Your task to perform on an android device: Search for the best gaming mouses on Amazon. Image 0: 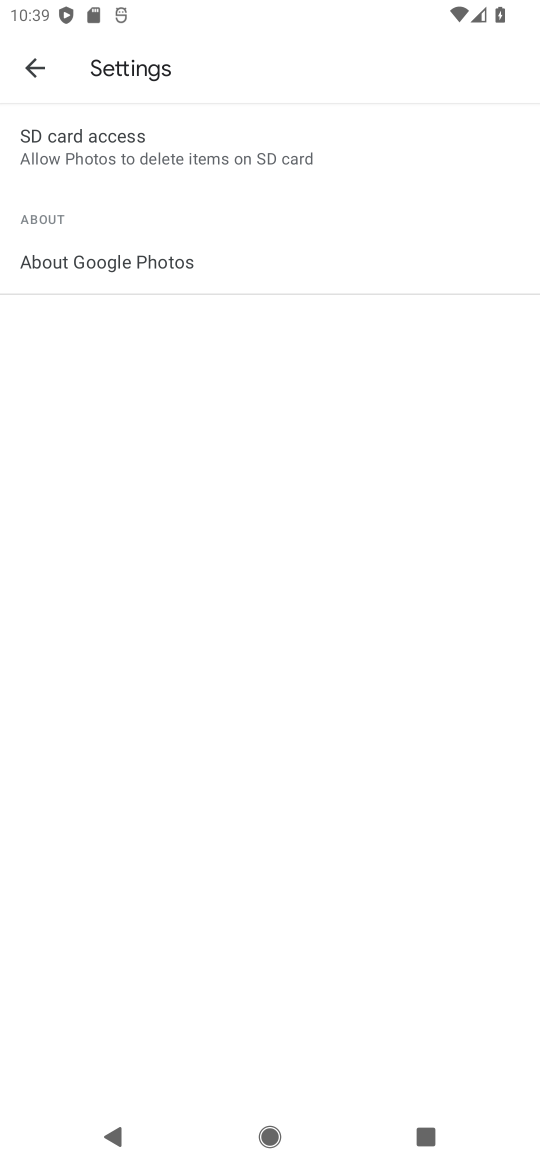
Step 0: press home button
Your task to perform on an android device: Search for the best gaming mouses on Amazon. Image 1: 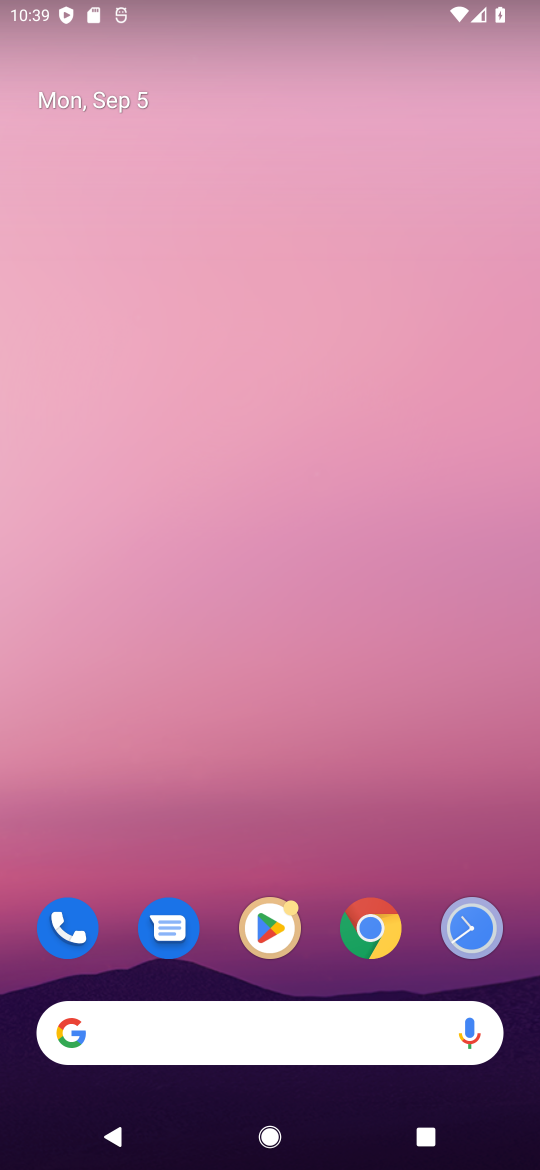
Step 1: drag from (344, 972) to (539, 28)
Your task to perform on an android device: Search for the best gaming mouses on Amazon. Image 2: 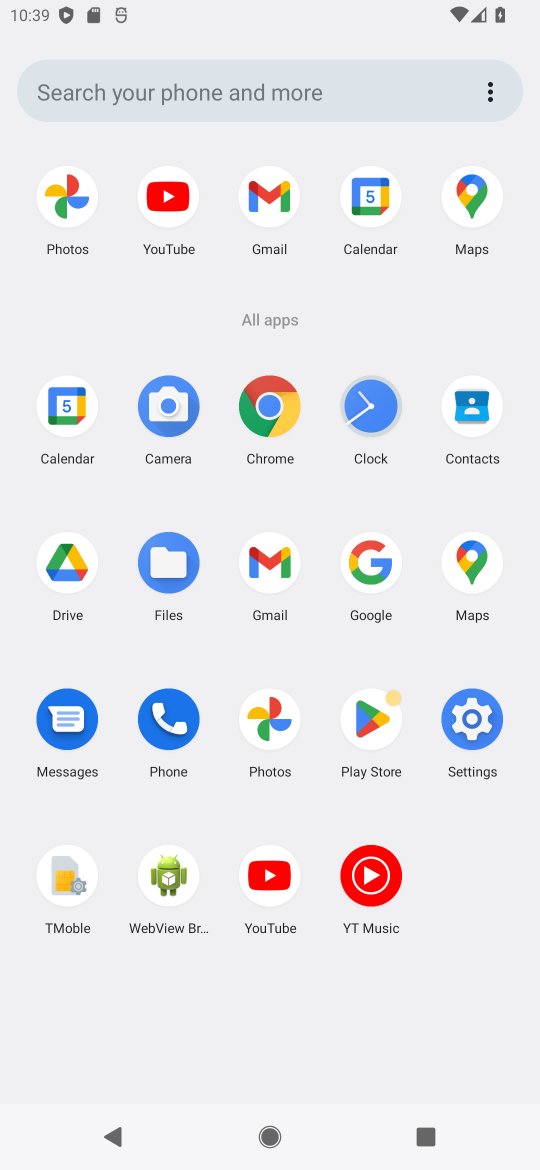
Step 2: click (277, 409)
Your task to perform on an android device: Search for the best gaming mouses on Amazon. Image 3: 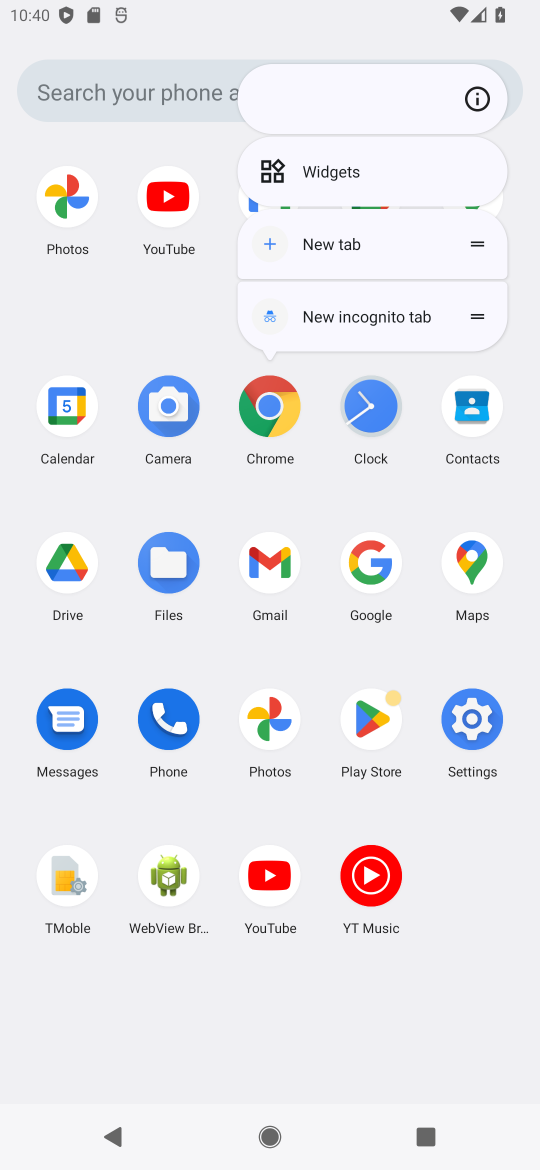
Step 3: click (277, 409)
Your task to perform on an android device: Search for the best gaming mouses on Amazon. Image 4: 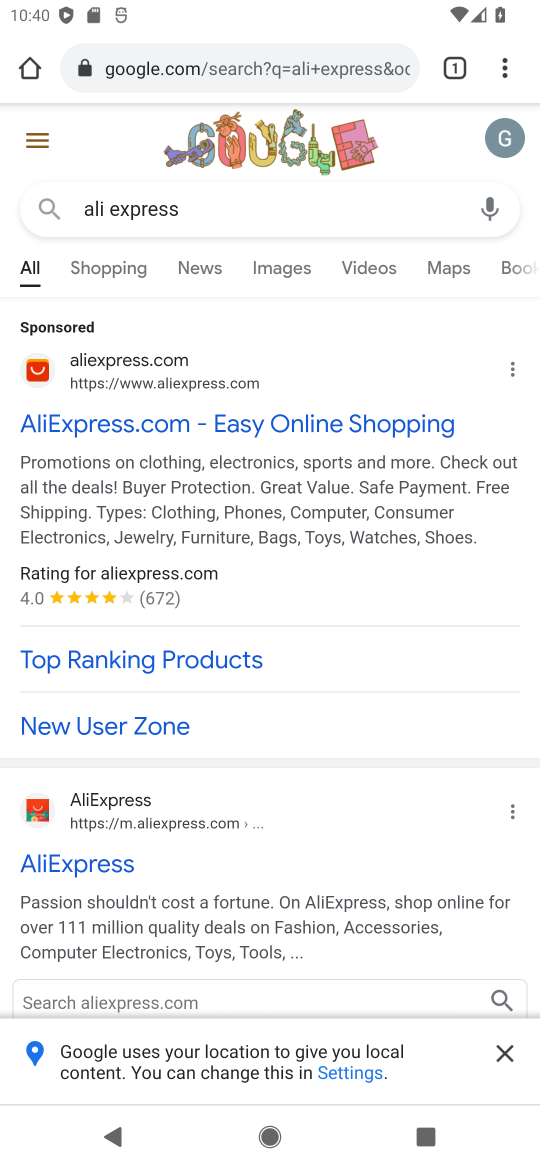
Step 4: click (390, 74)
Your task to perform on an android device: Search for the best gaming mouses on Amazon. Image 5: 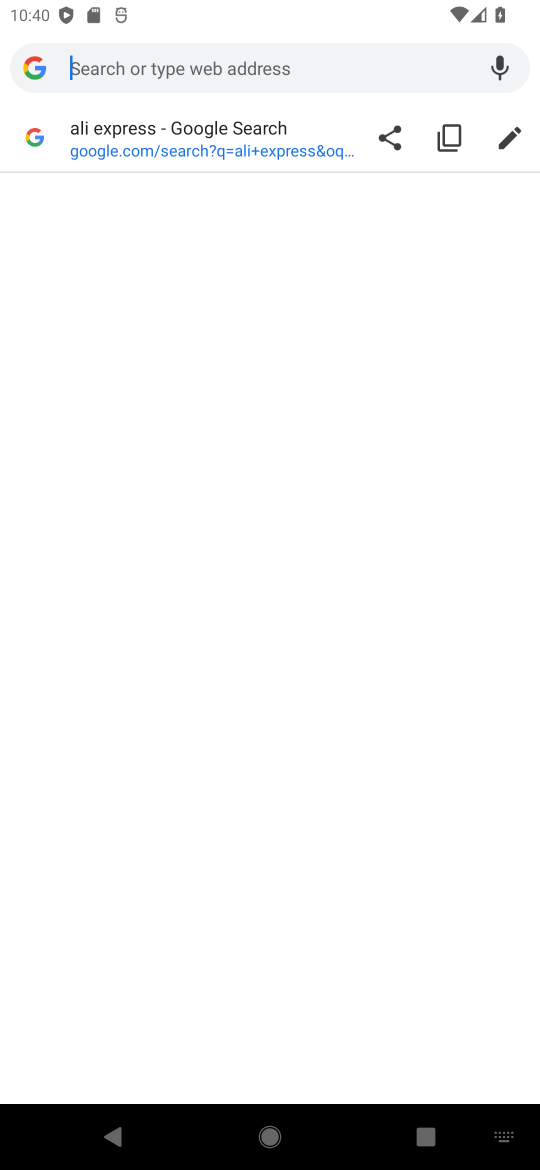
Step 5: click (313, 70)
Your task to perform on an android device: Search for the best gaming mouses on Amazon. Image 6: 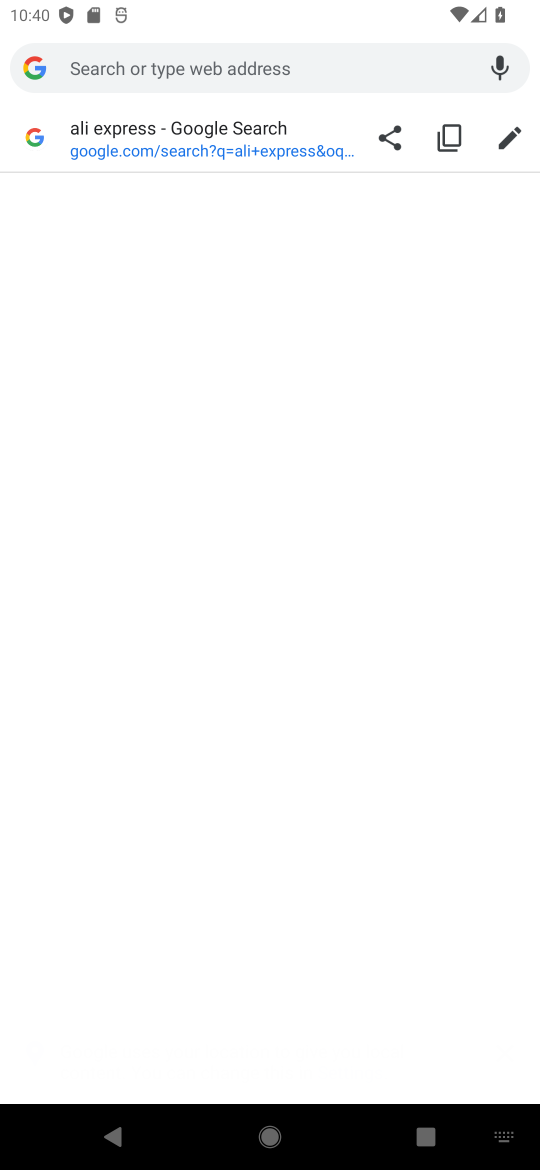
Step 6: type "best gaming mouses on Amazon"
Your task to perform on an android device: Search for the best gaming mouses on Amazon. Image 7: 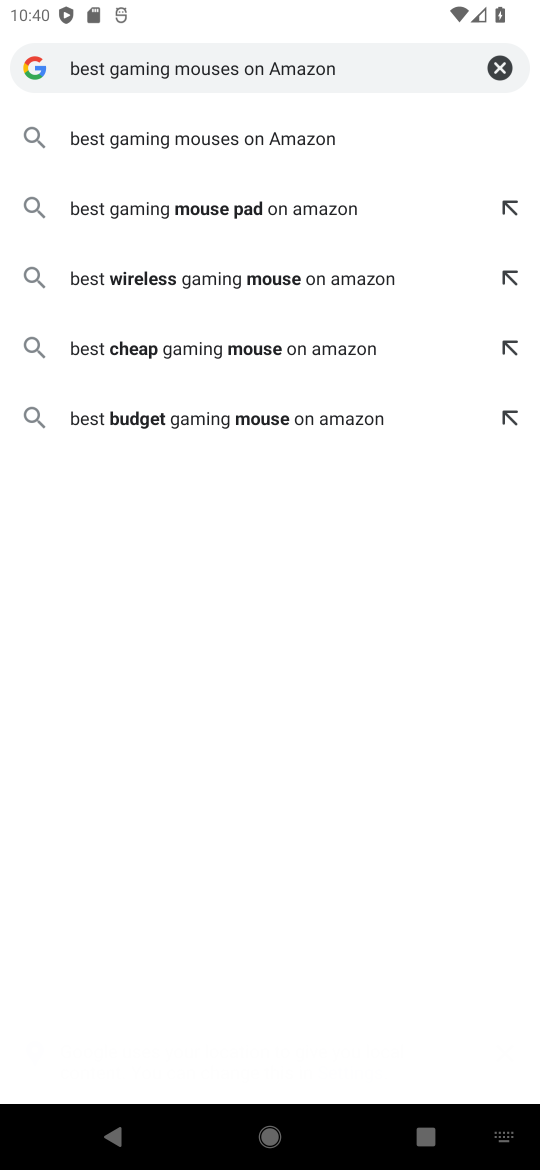
Step 7: press enter
Your task to perform on an android device: Search for the best gaming mouses on Amazon. Image 8: 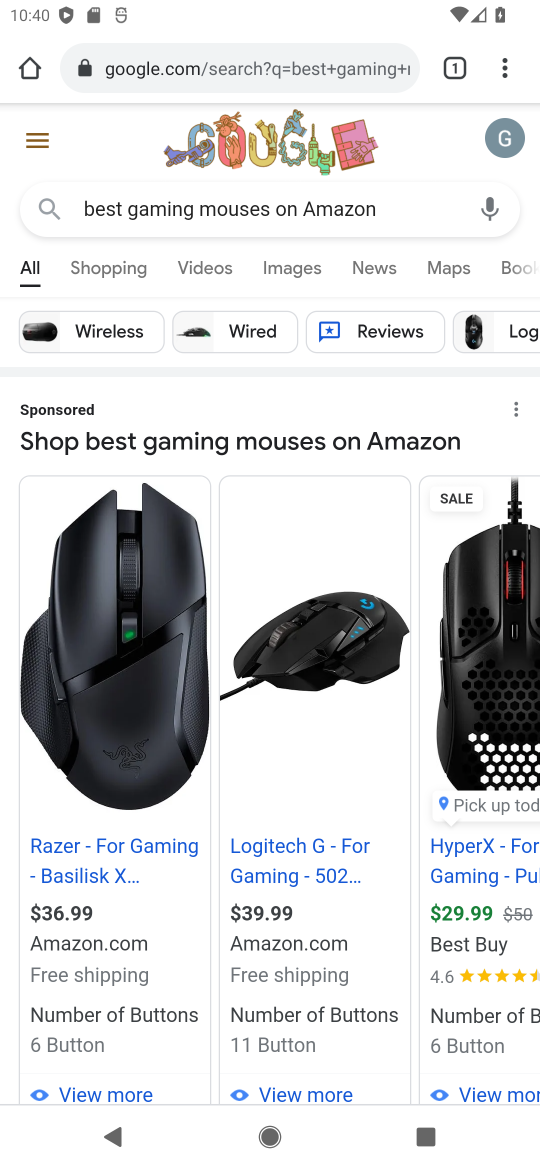
Step 8: drag from (274, 404) to (296, 36)
Your task to perform on an android device: Search for the best gaming mouses on Amazon. Image 9: 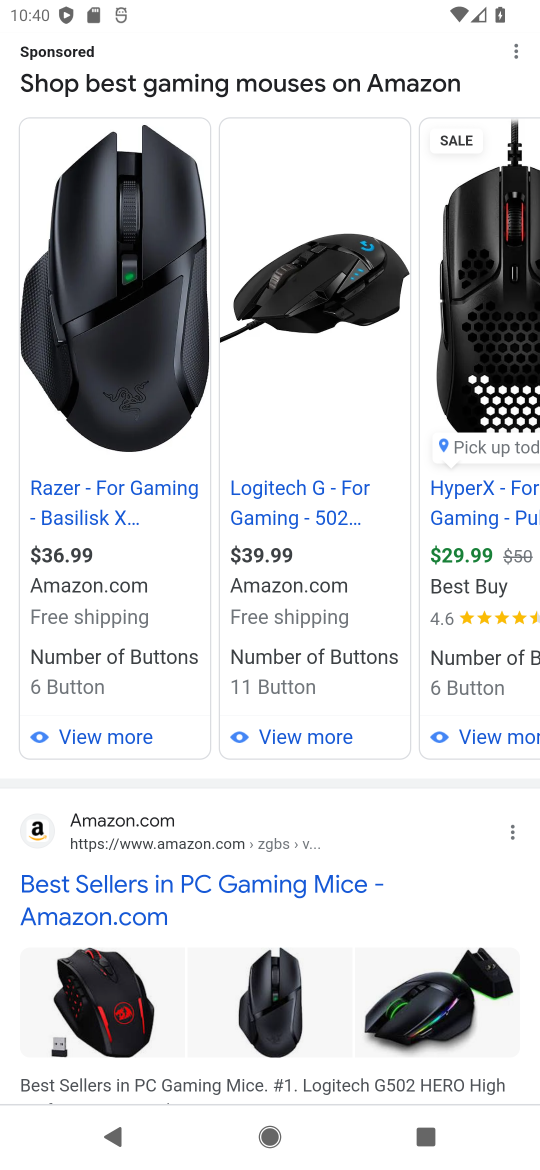
Step 9: click (210, 997)
Your task to perform on an android device: Search for the best gaming mouses on Amazon. Image 10: 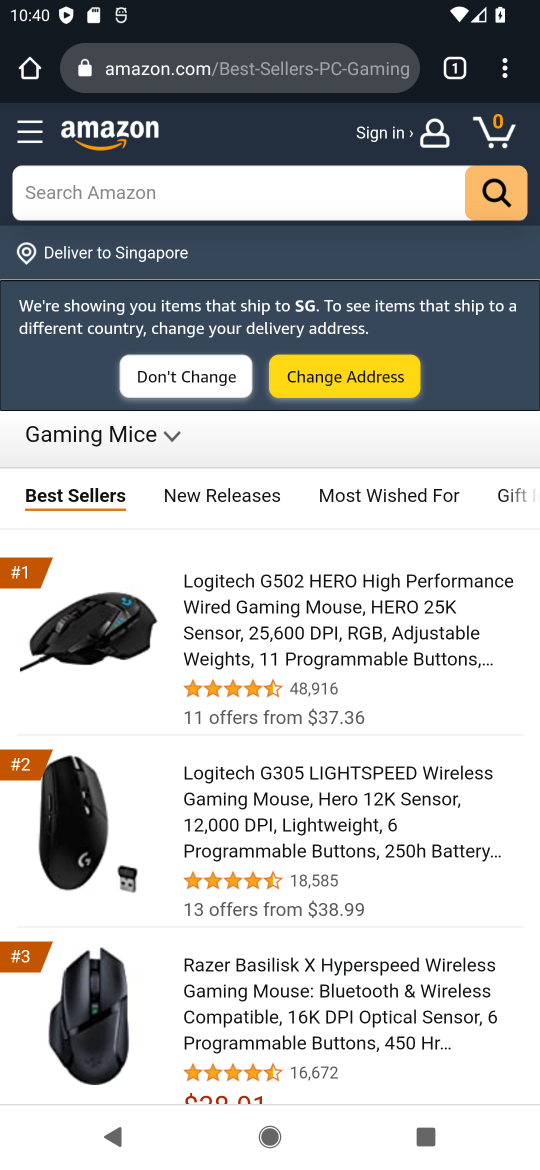
Step 10: task complete